Your task to perform on an android device: toggle notification dots Image 0: 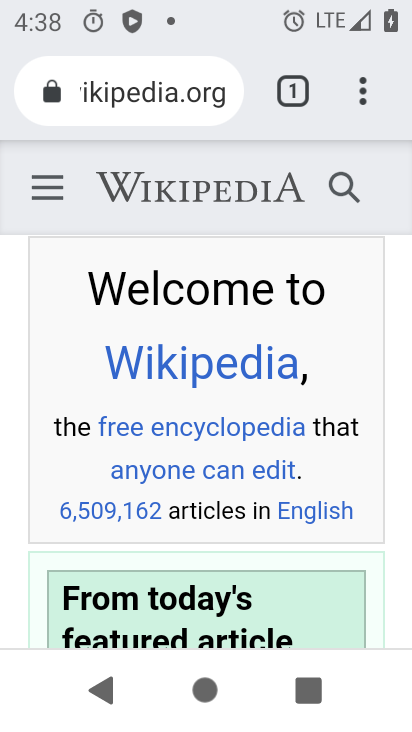
Step 0: press home button
Your task to perform on an android device: toggle notification dots Image 1: 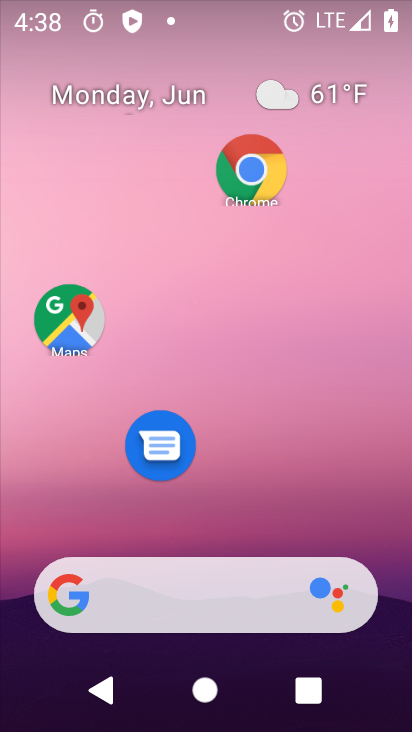
Step 1: drag from (250, 509) to (225, 84)
Your task to perform on an android device: toggle notification dots Image 2: 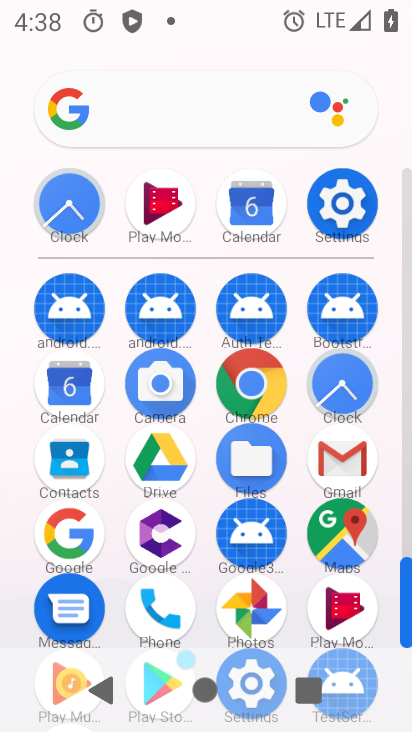
Step 2: click (343, 214)
Your task to perform on an android device: toggle notification dots Image 3: 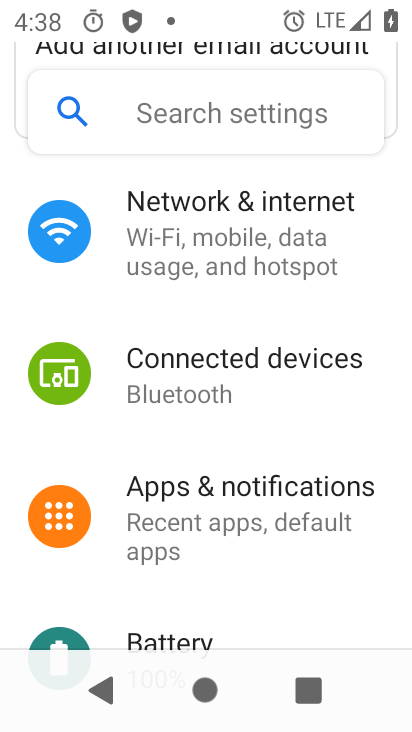
Step 3: click (211, 495)
Your task to perform on an android device: toggle notification dots Image 4: 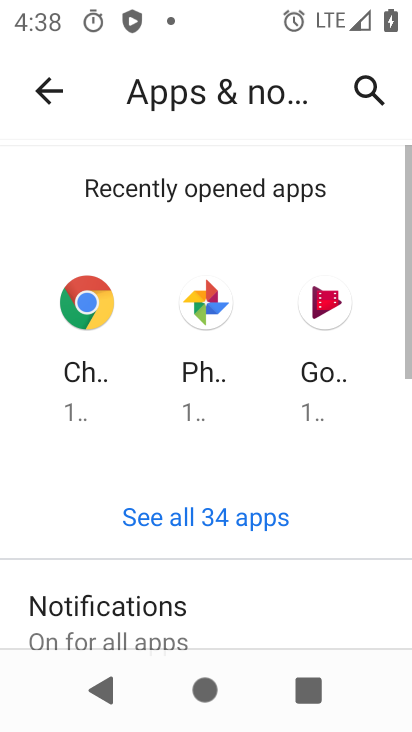
Step 4: drag from (196, 624) to (182, 306)
Your task to perform on an android device: toggle notification dots Image 5: 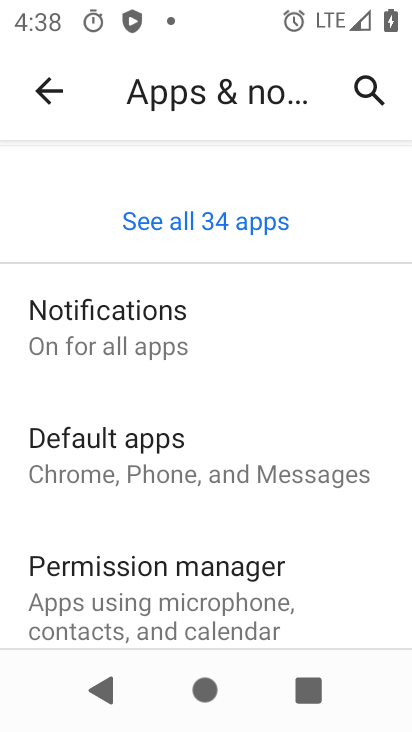
Step 5: drag from (157, 528) to (147, 322)
Your task to perform on an android device: toggle notification dots Image 6: 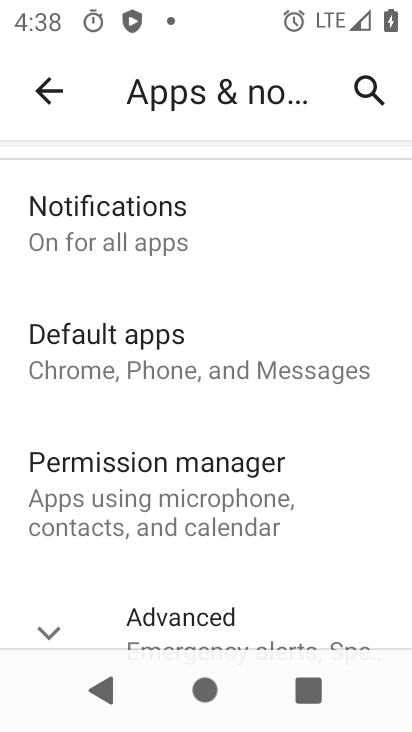
Step 6: click (147, 626)
Your task to perform on an android device: toggle notification dots Image 7: 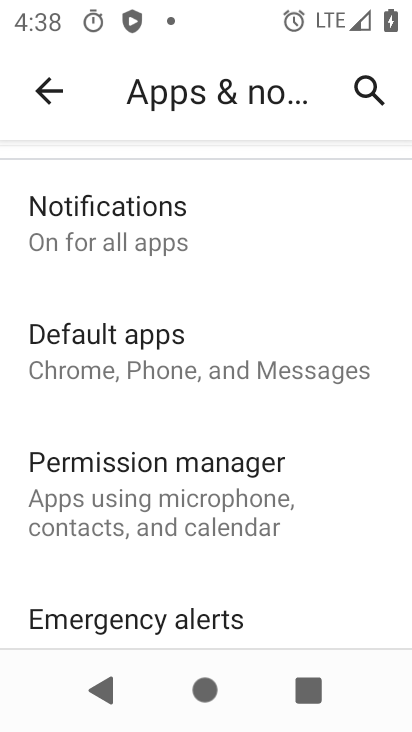
Step 7: drag from (198, 607) to (225, 359)
Your task to perform on an android device: toggle notification dots Image 8: 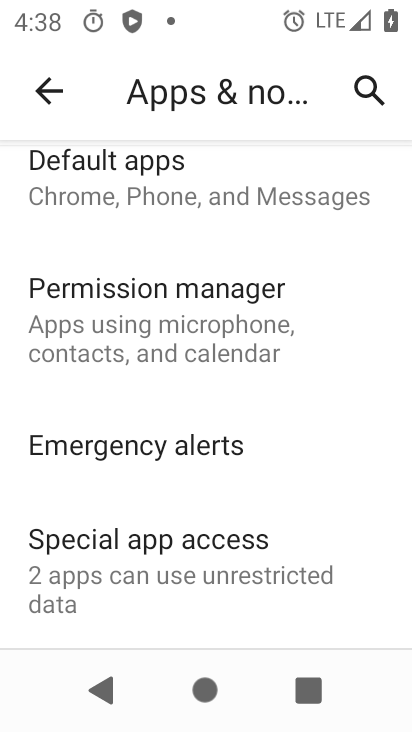
Step 8: drag from (215, 377) to (184, 546)
Your task to perform on an android device: toggle notification dots Image 9: 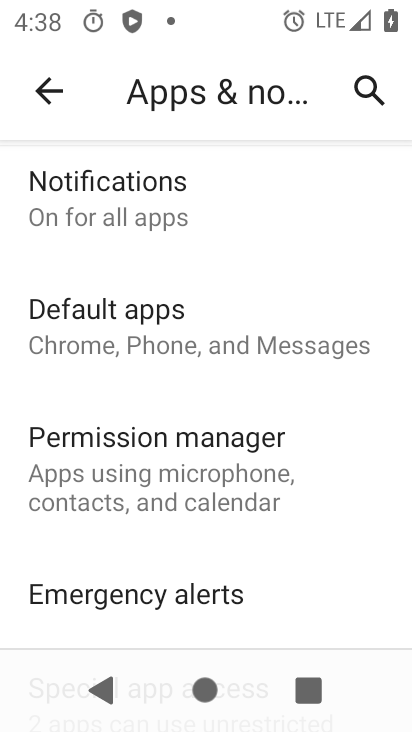
Step 9: click (144, 211)
Your task to perform on an android device: toggle notification dots Image 10: 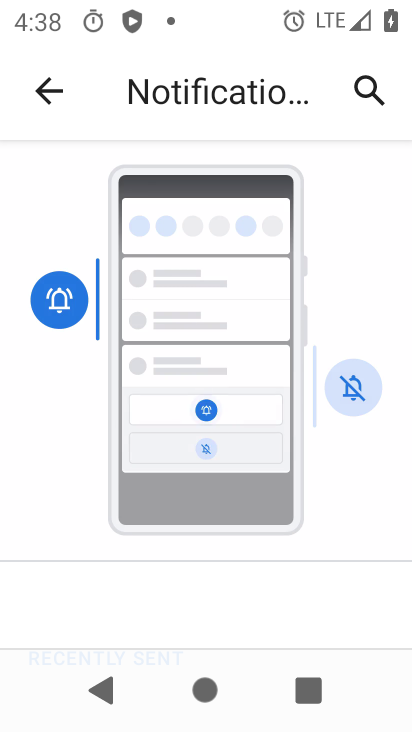
Step 10: drag from (167, 577) to (219, 198)
Your task to perform on an android device: toggle notification dots Image 11: 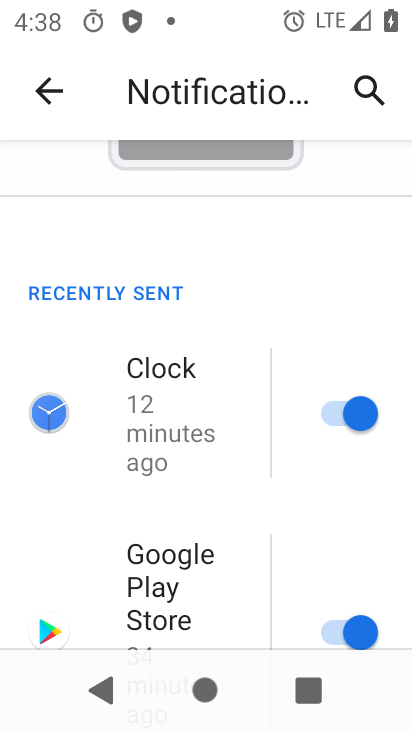
Step 11: drag from (134, 499) to (323, 65)
Your task to perform on an android device: toggle notification dots Image 12: 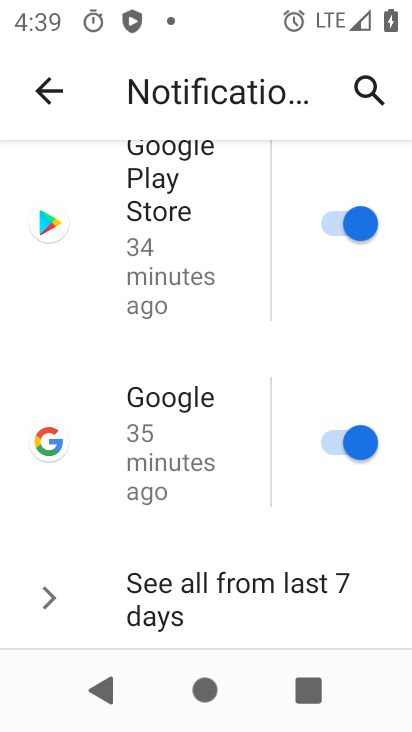
Step 12: drag from (169, 596) to (235, 144)
Your task to perform on an android device: toggle notification dots Image 13: 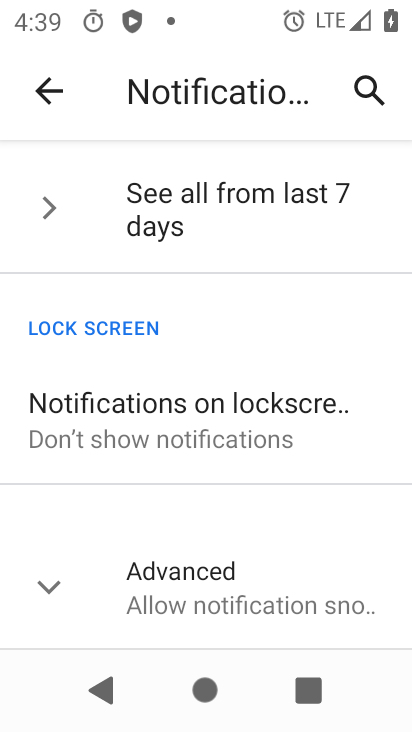
Step 13: click (166, 602)
Your task to perform on an android device: toggle notification dots Image 14: 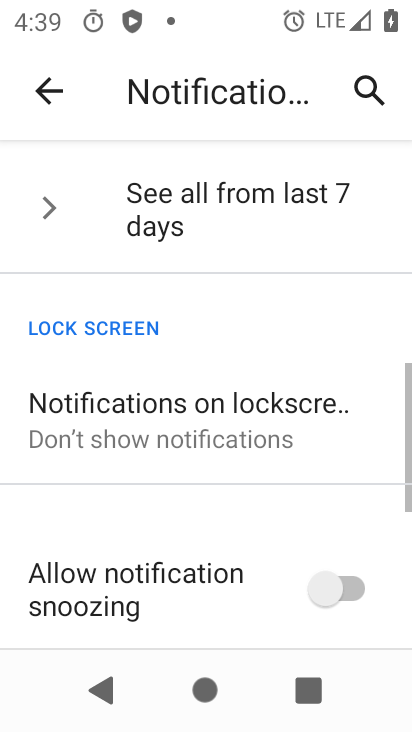
Step 14: drag from (166, 602) to (209, 238)
Your task to perform on an android device: toggle notification dots Image 15: 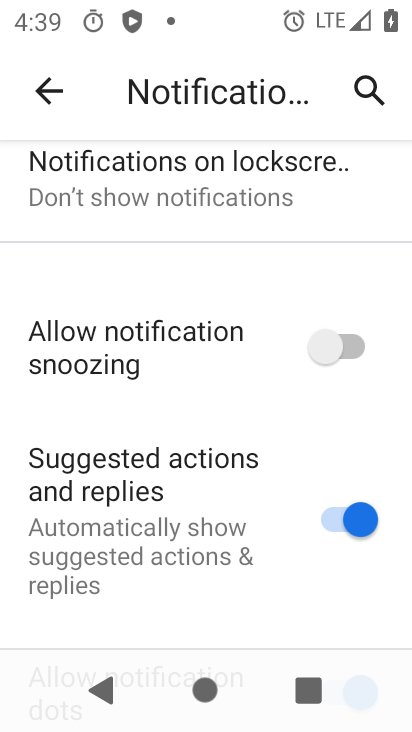
Step 15: drag from (187, 528) to (210, 147)
Your task to perform on an android device: toggle notification dots Image 16: 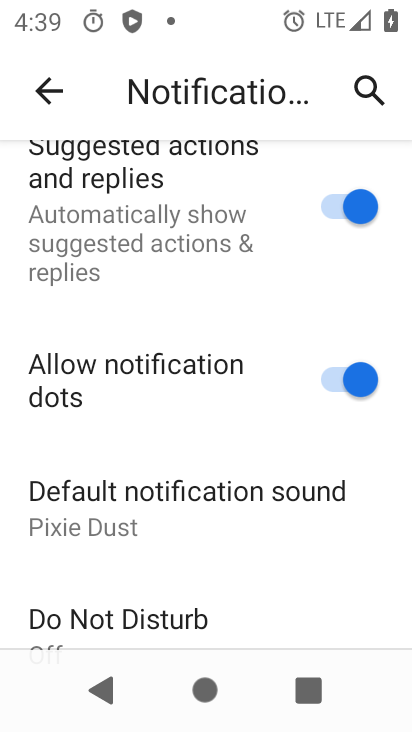
Step 16: drag from (207, 536) to (221, 204)
Your task to perform on an android device: toggle notification dots Image 17: 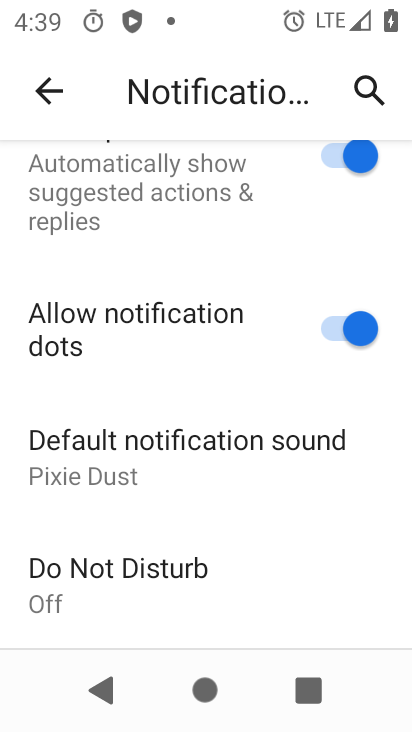
Step 17: click (329, 343)
Your task to perform on an android device: toggle notification dots Image 18: 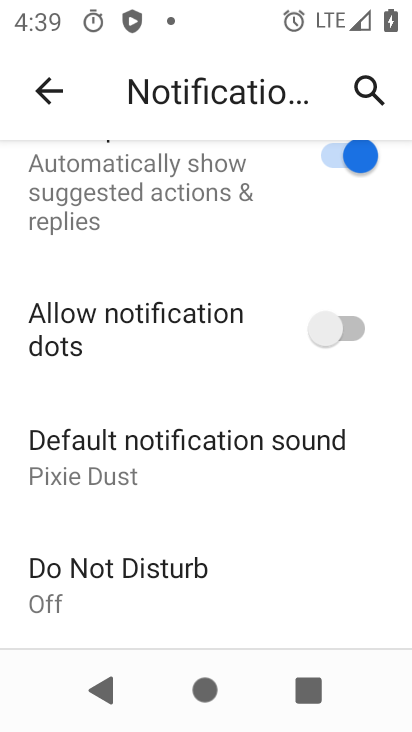
Step 18: task complete